Your task to perform on an android device: install app "Microsoft Outlook" Image 0: 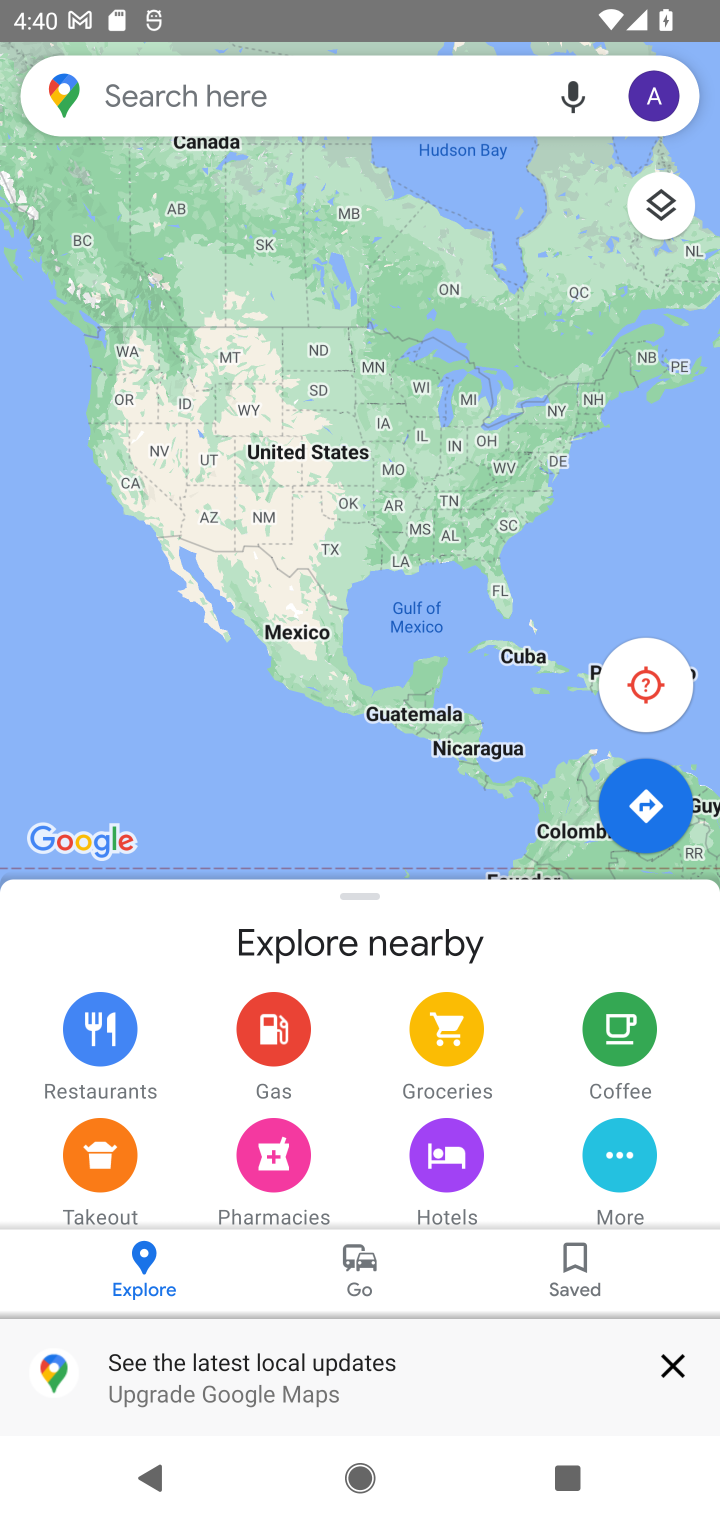
Step 0: press home button
Your task to perform on an android device: install app "Microsoft Outlook" Image 1: 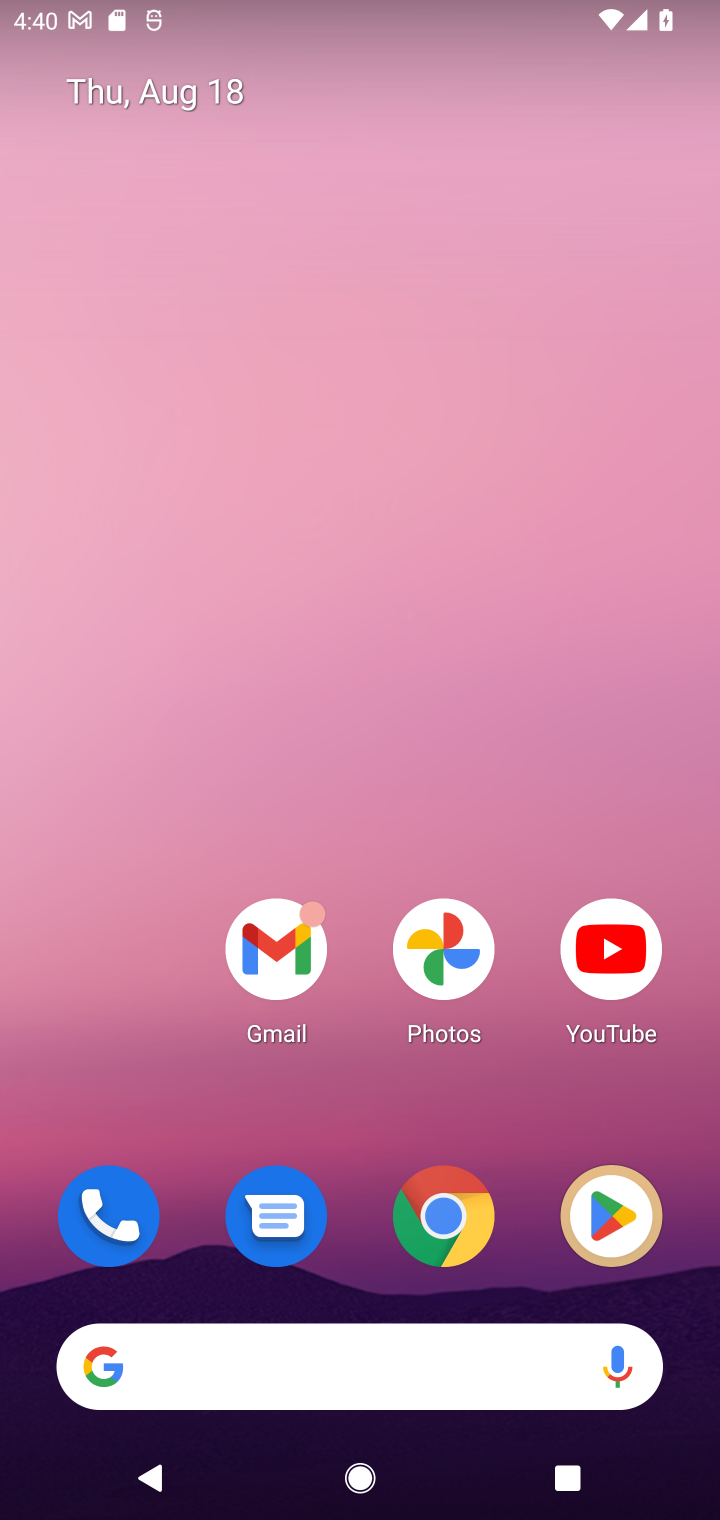
Step 1: click (607, 1217)
Your task to perform on an android device: install app "Microsoft Outlook" Image 2: 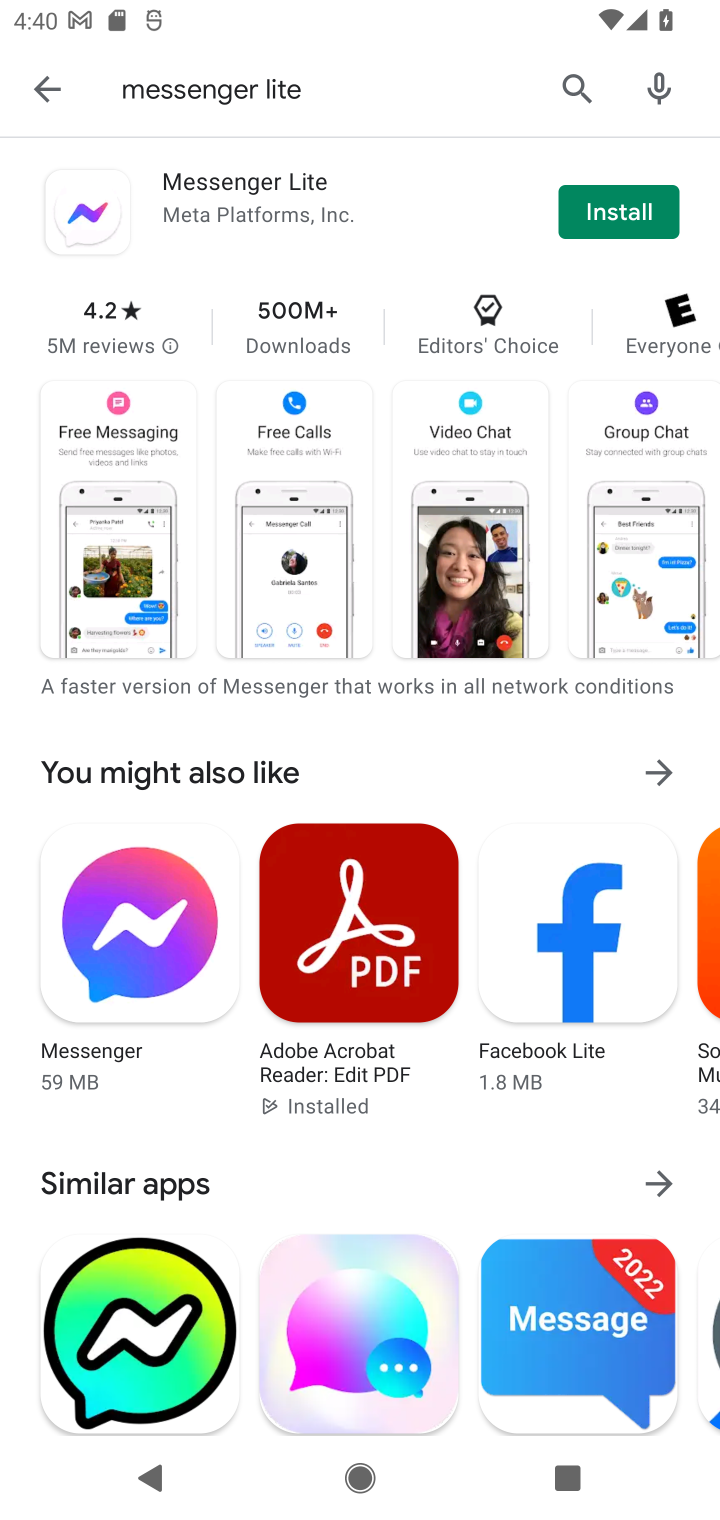
Step 2: click (569, 79)
Your task to perform on an android device: install app "Microsoft Outlook" Image 3: 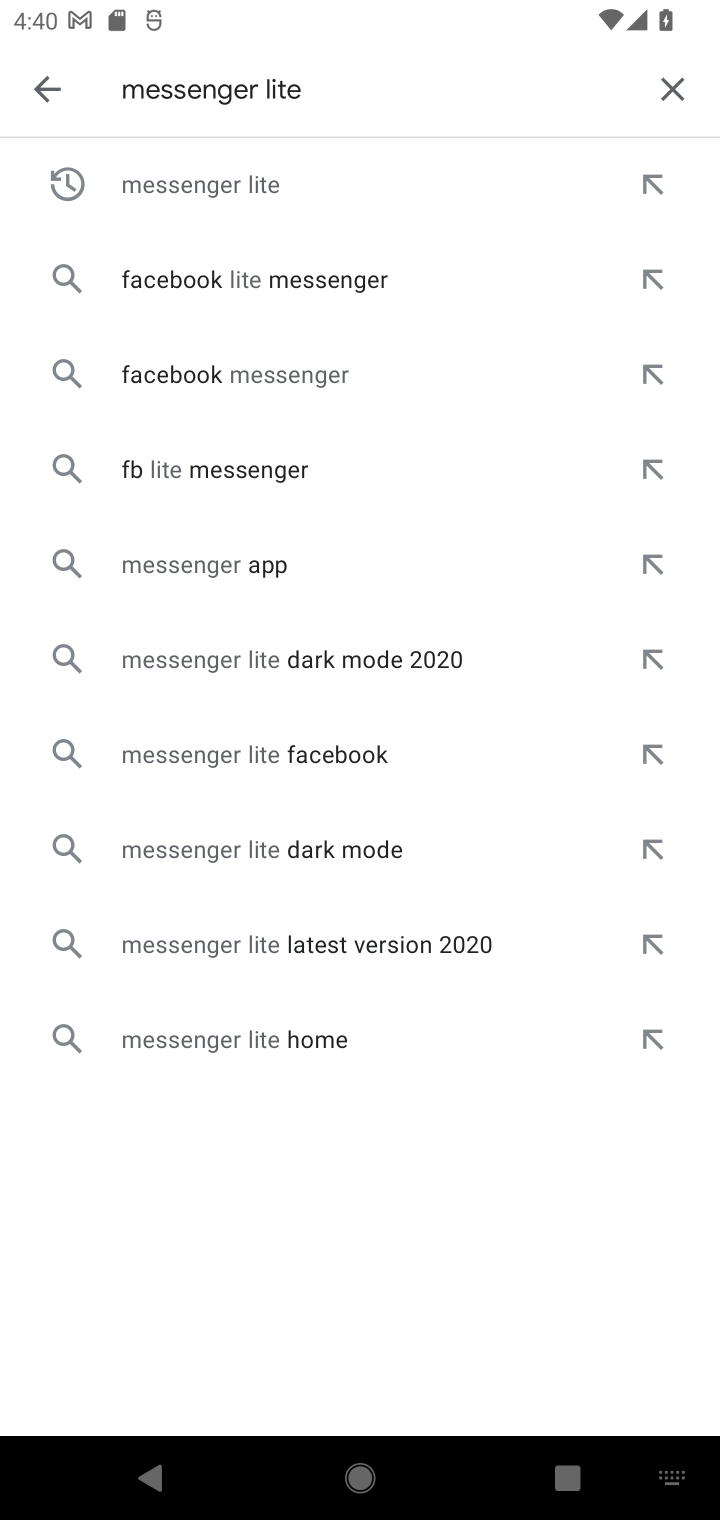
Step 3: click (672, 82)
Your task to perform on an android device: install app "Microsoft Outlook" Image 4: 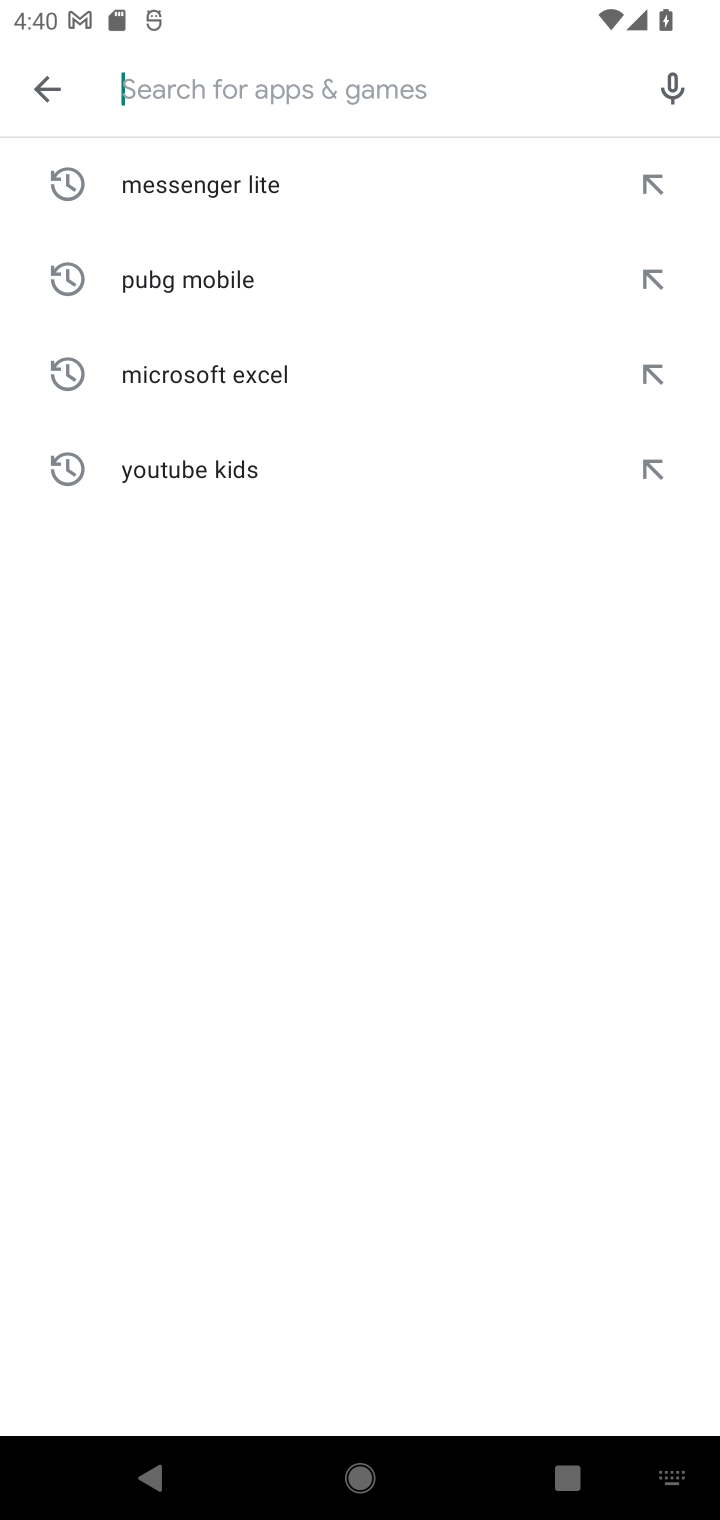
Step 4: type "Microsoft Outlook"
Your task to perform on an android device: install app "Microsoft Outlook" Image 5: 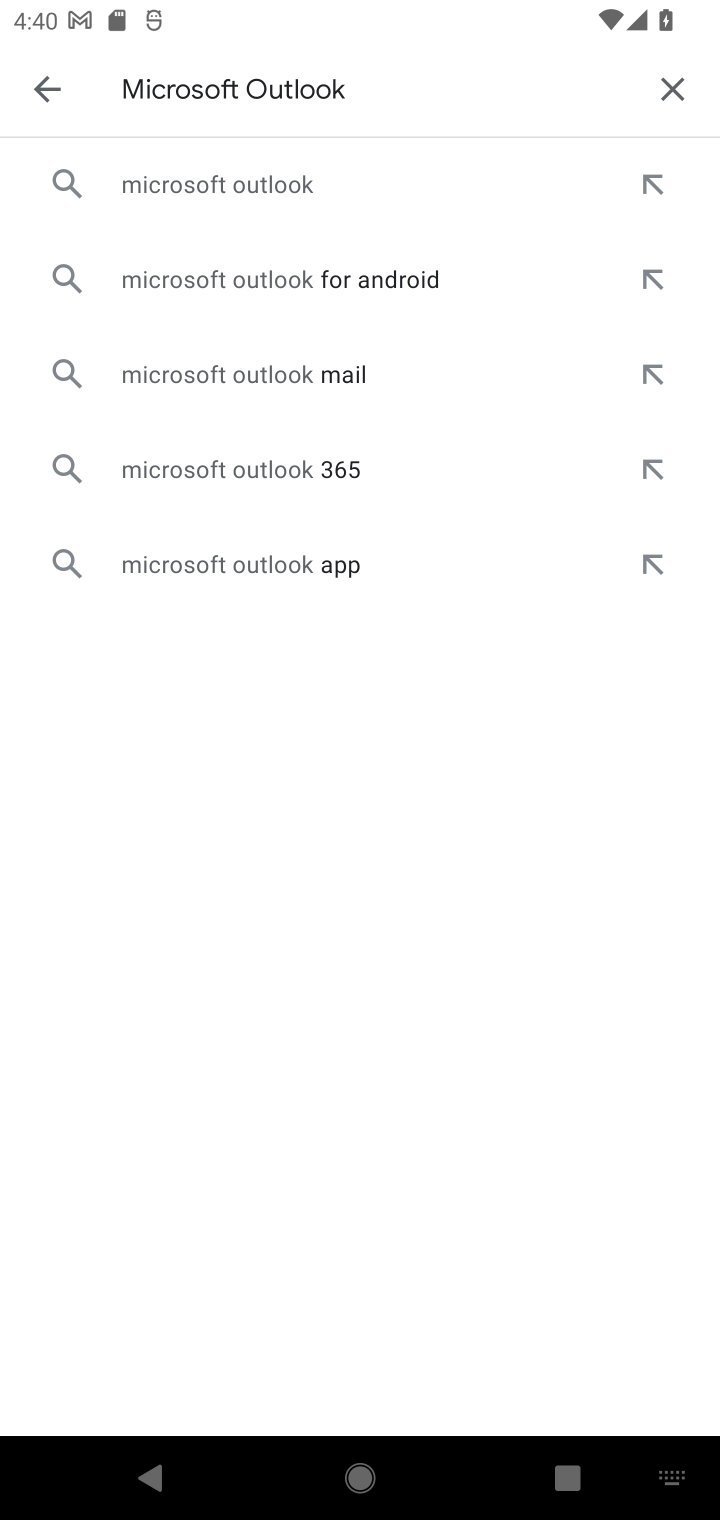
Step 5: click (258, 190)
Your task to perform on an android device: install app "Microsoft Outlook" Image 6: 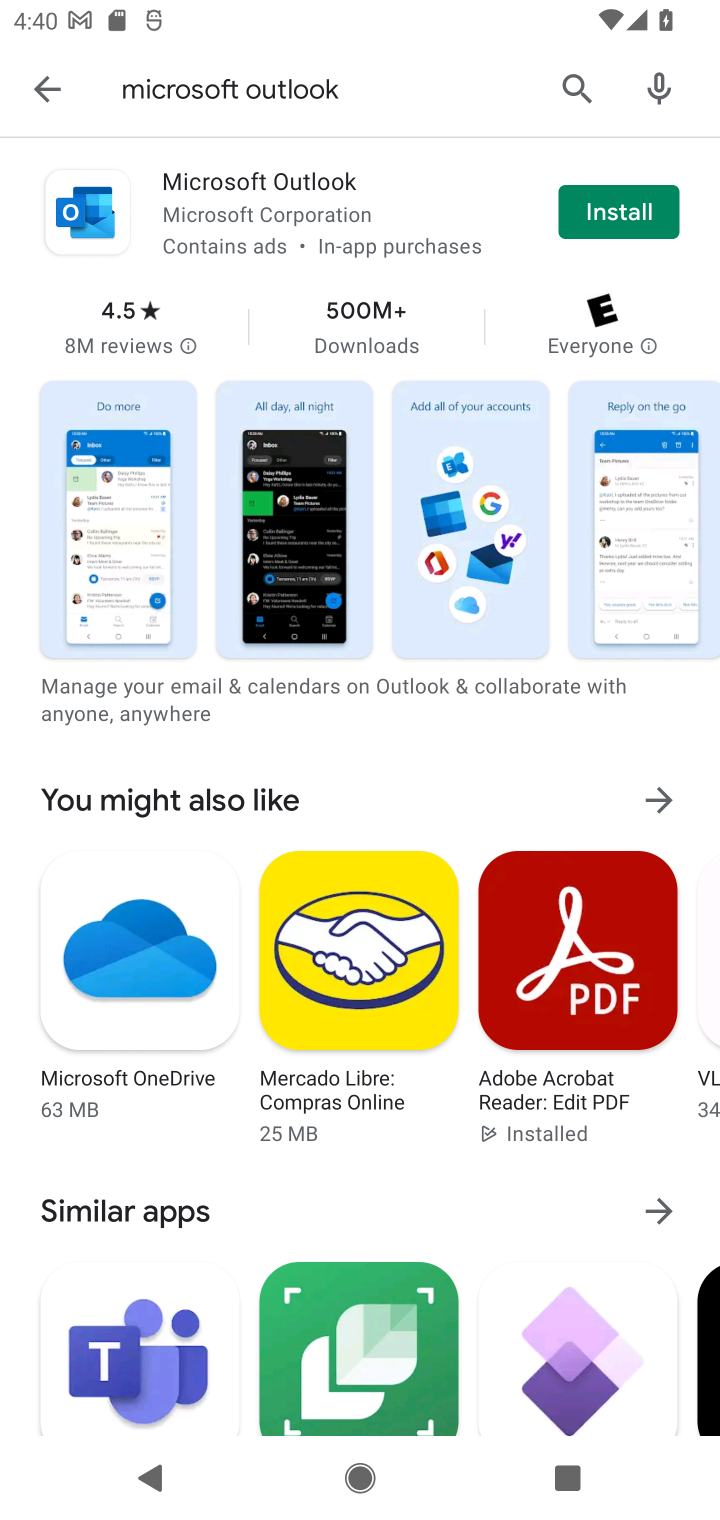
Step 6: click (615, 212)
Your task to perform on an android device: install app "Microsoft Outlook" Image 7: 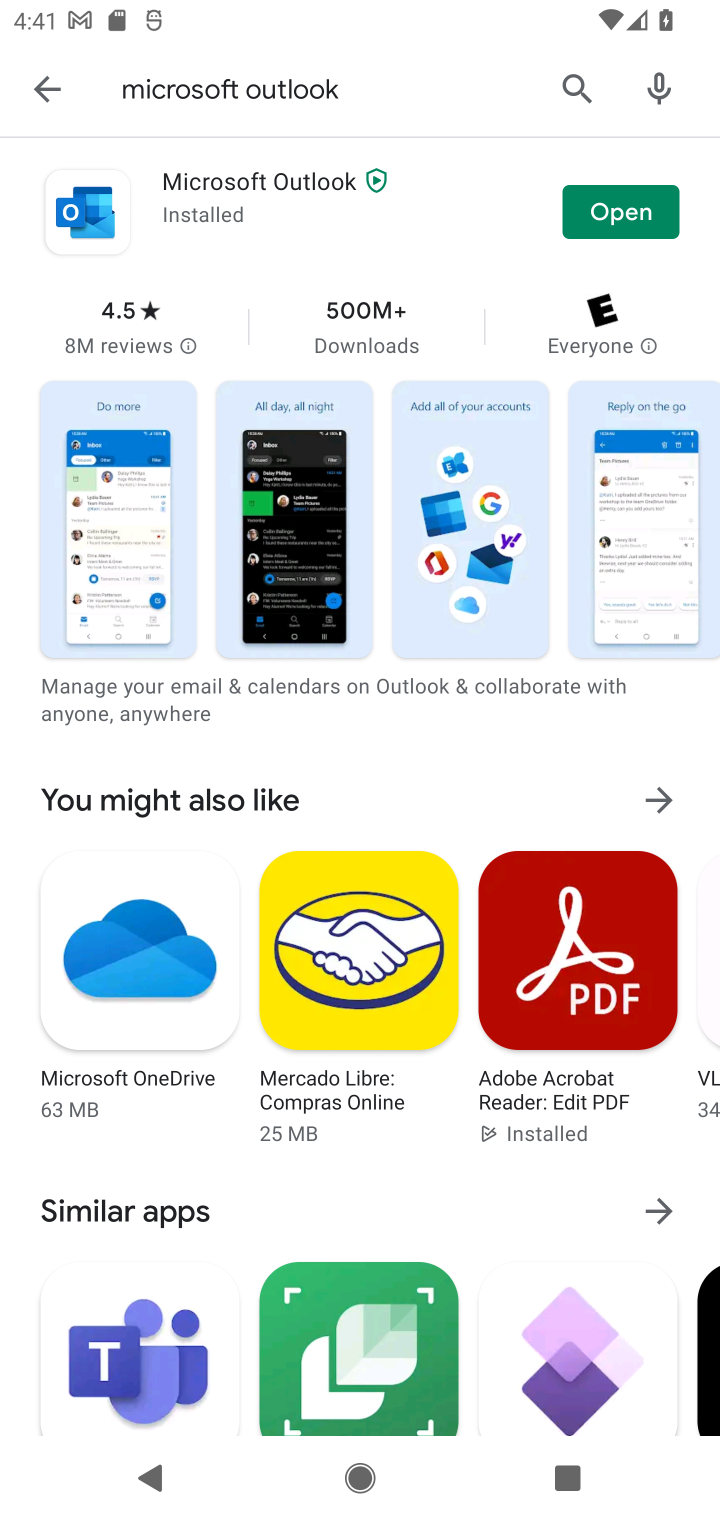
Step 7: task complete